Your task to perform on an android device: Search for Italian restaurants on Maps Image 0: 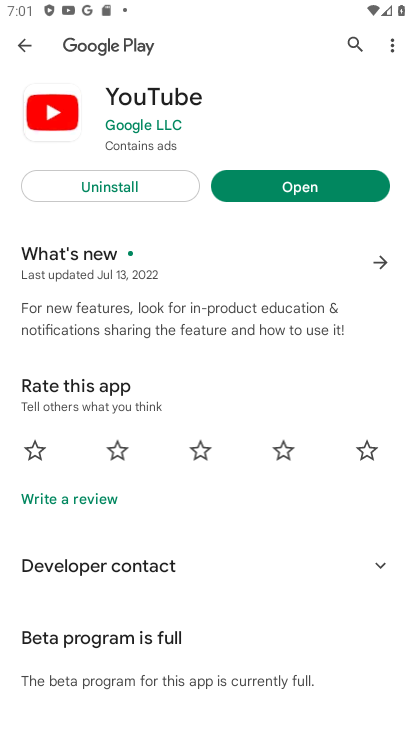
Step 0: press home button
Your task to perform on an android device: Search for Italian restaurants on Maps Image 1: 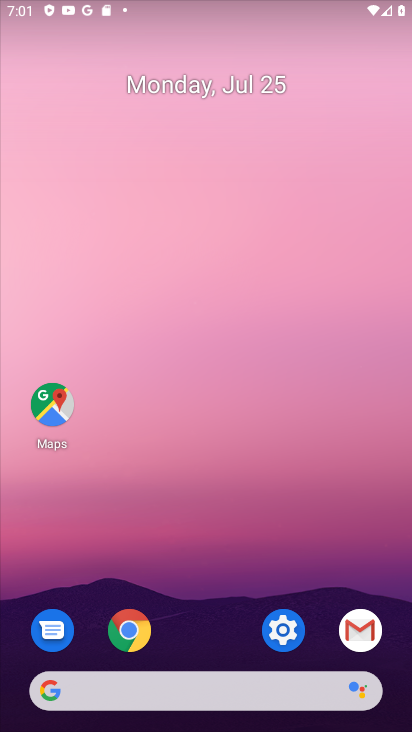
Step 1: click (44, 396)
Your task to perform on an android device: Search for Italian restaurants on Maps Image 2: 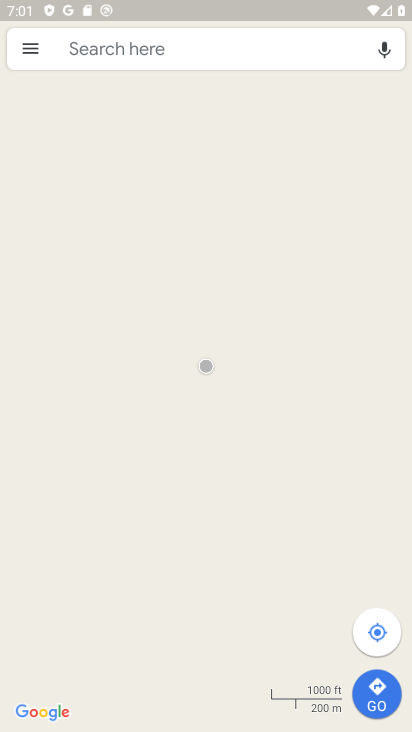
Step 2: click (142, 52)
Your task to perform on an android device: Search for Italian restaurants on Maps Image 3: 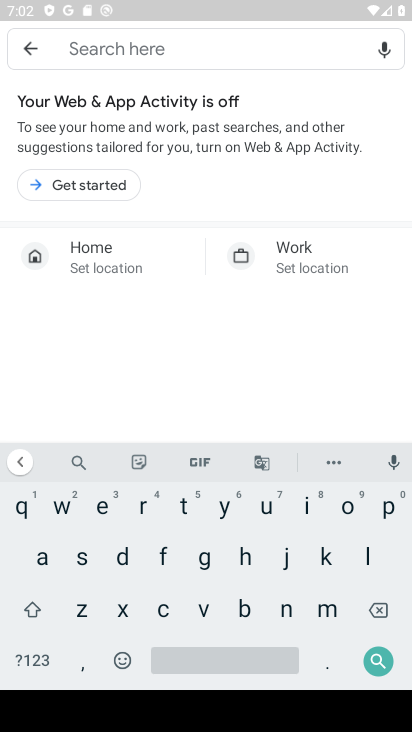
Step 3: click (311, 511)
Your task to perform on an android device: Search for Italian restaurants on Maps Image 4: 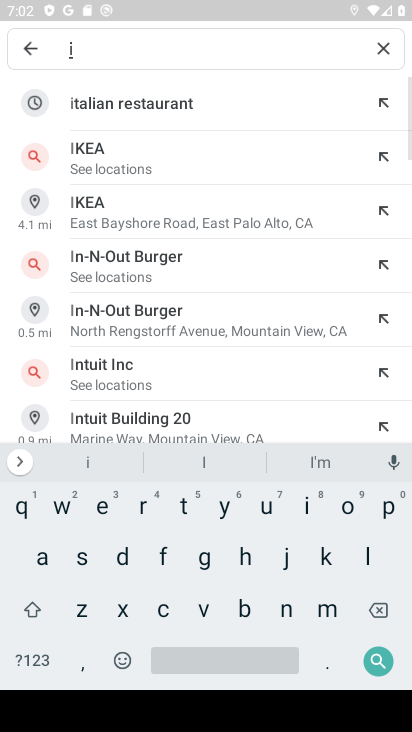
Step 4: click (139, 93)
Your task to perform on an android device: Search for Italian restaurants on Maps Image 5: 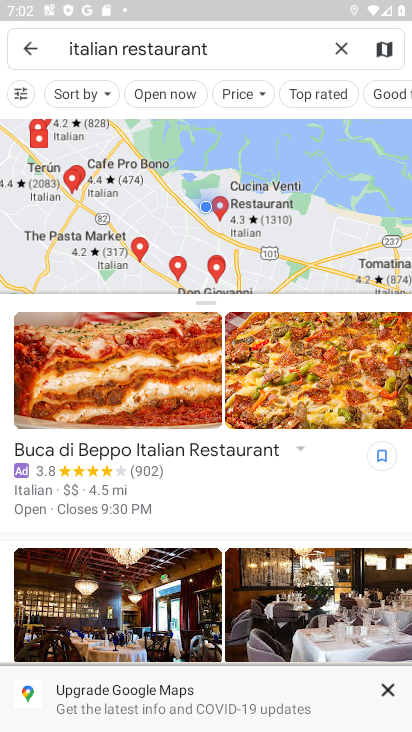
Step 5: task complete